Your task to perform on an android device: Open Amazon Image 0: 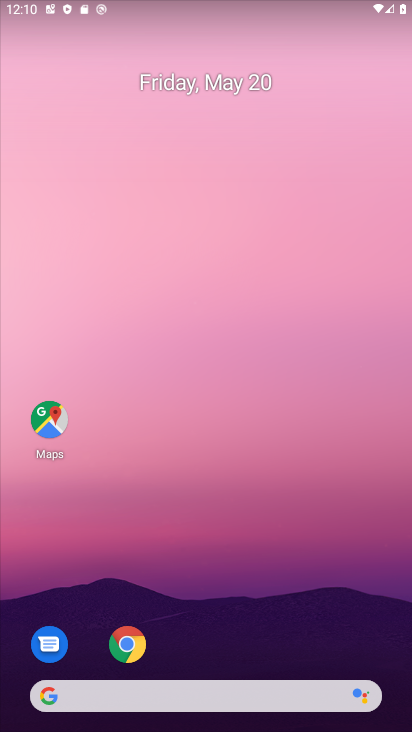
Step 0: click (136, 647)
Your task to perform on an android device: Open Amazon Image 1: 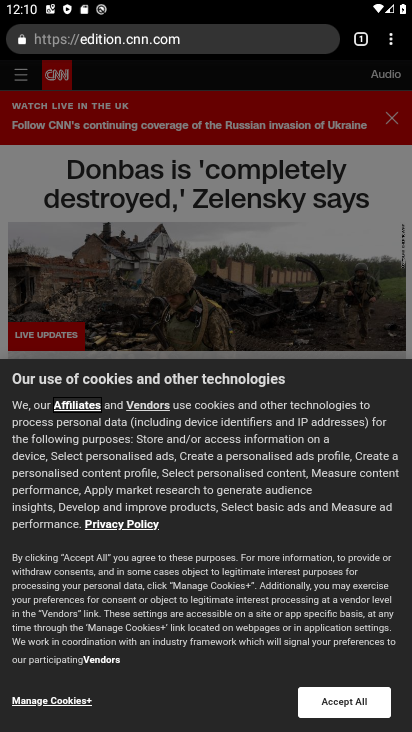
Step 1: click (184, 37)
Your task to perform on an android device: Open Amazon Image 2: 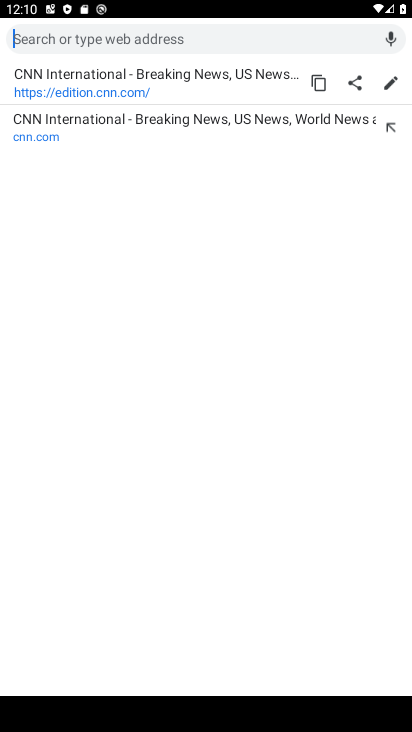
Step 2: type "amazon"
Your task to perform on an android device: Open Amazon Image 3: 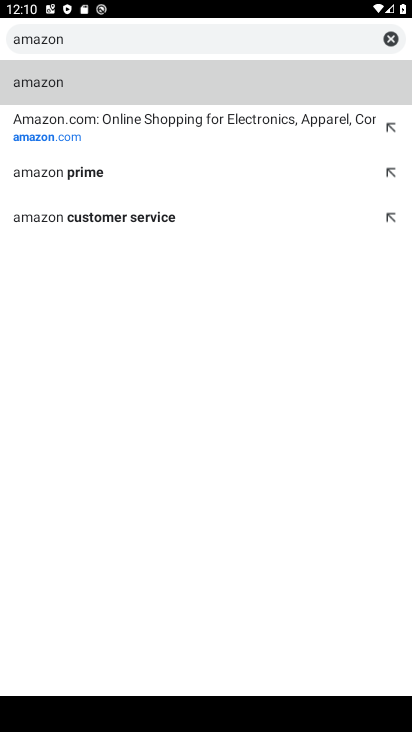
Step 3: click (59, 130)
Your task to perform on an android device: Open Amazon Image 4: 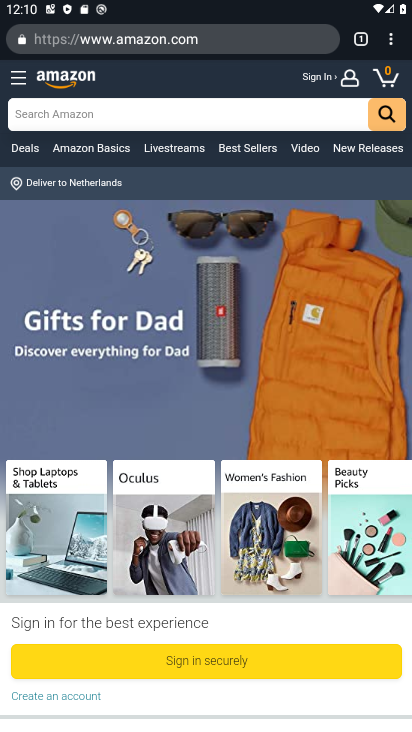
Step 4: task complete